Your task to perform on an android device: Open calendar and show me the third week of next month Image 0: 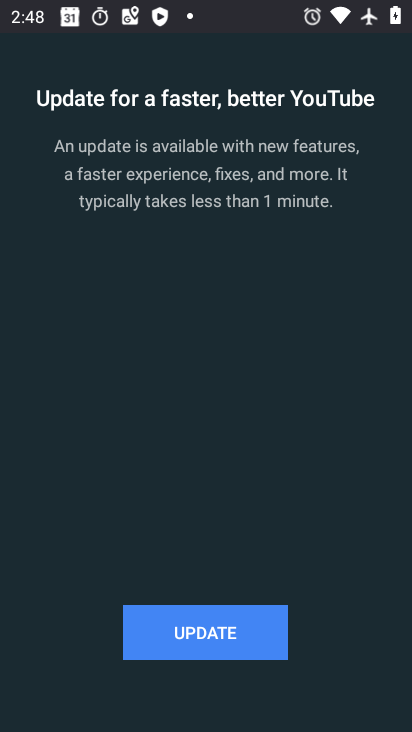
Step 0: press home button
Your task to perform on an android device: Open calendar and show me the third week of next month Image 1: 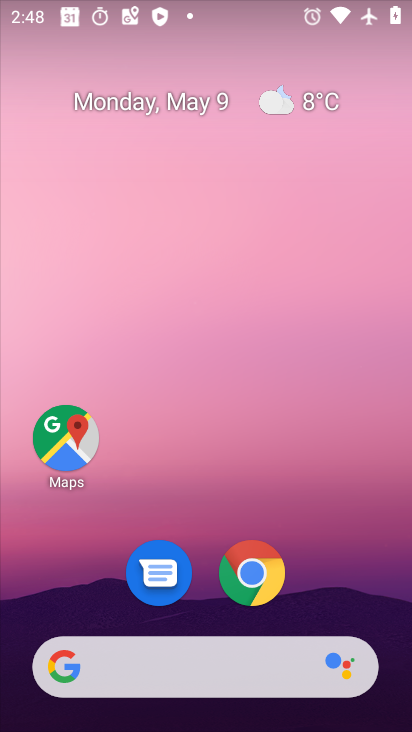
Step 1: drag from (155, 664) to (276, 14)
Your task to perform on an android device: Open calendar and show me the third week of next month Image 2: 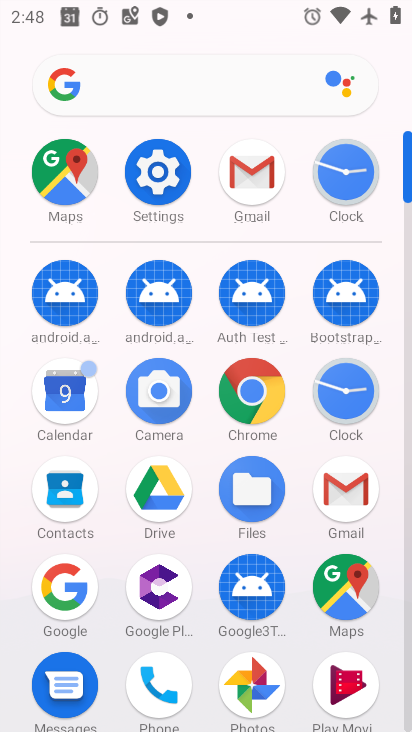
Step 2: click (57, 402)
Your task to perform on an android device: Open calendar and show me the third week of next month Image 3: 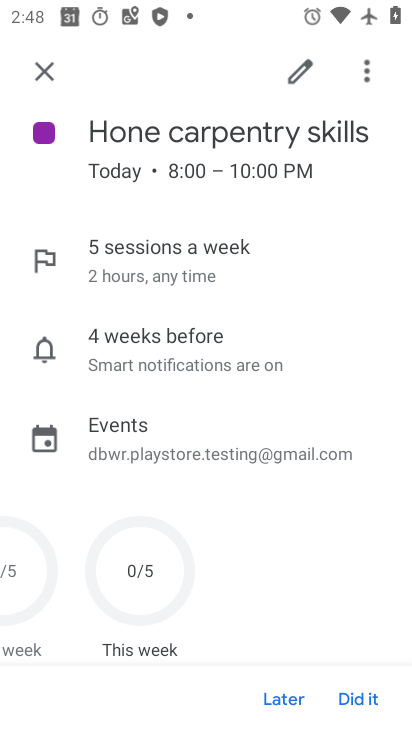
Step 3: click (43, 72)
Your task to perform on an android device: Open calendar and show me the third week of next month Image 4: 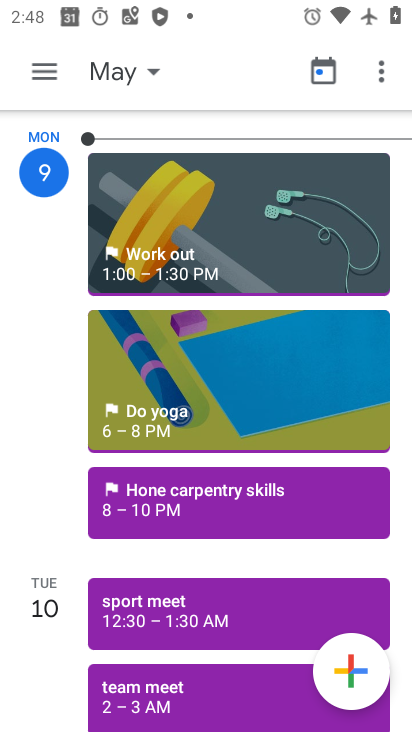
Step 4: click (114, 71)
Your task to perform on an android device: Open calendar and show me the third week of next month Image 5: 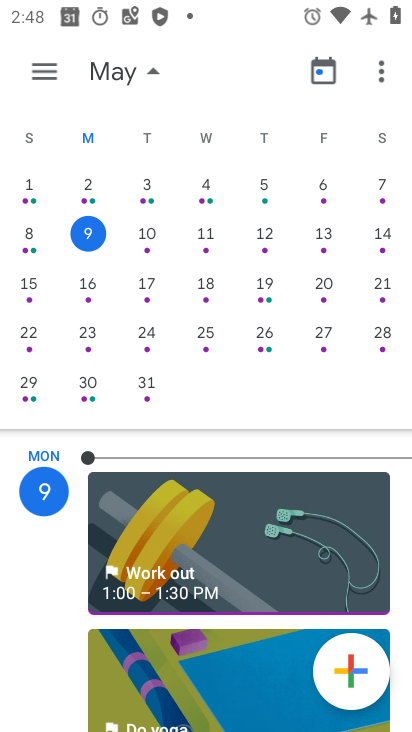
Step 5: drag from (330, 316) to (44, 241)
Your task to perform on an android device: Open calendar and show me the third week of next month Image 6: 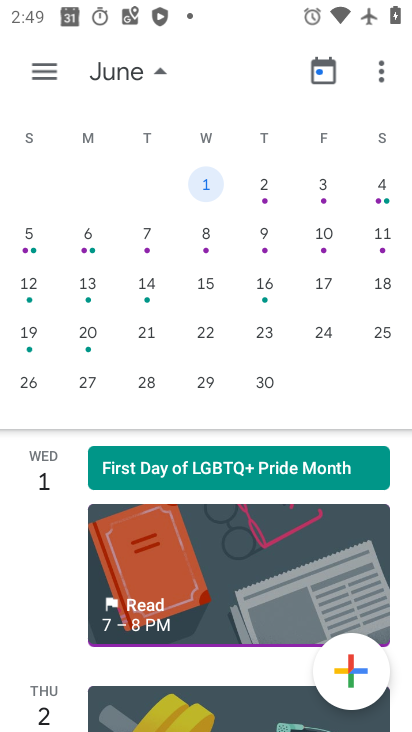
Step 6: click (34, 288)
Your task to perform on an android device: Open calendar and show me the third week of next month Image 7: 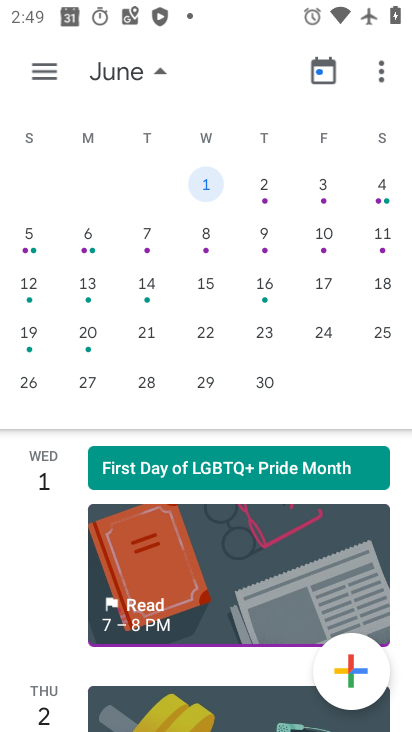
Step 7: click (31, 284)
Your task to perform on an android device: Open calendar and show me the third week of next month Image 8: 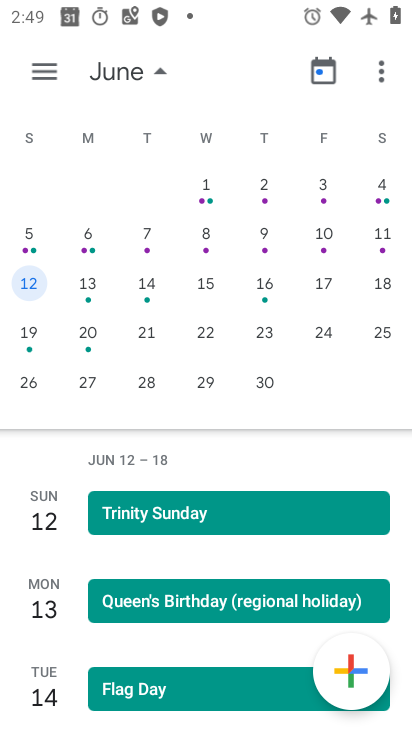
Step 8: click (48, 71)
Your task to perform on an android device: Open calendar and show me the third week of next month Image 9: 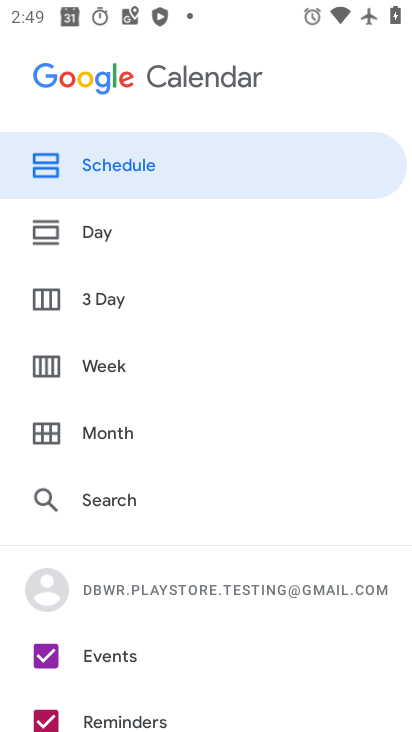
Step 9: click (105, 364)
Your task to perform on an android device: Open calendar and show me the third week of next month Image 10: 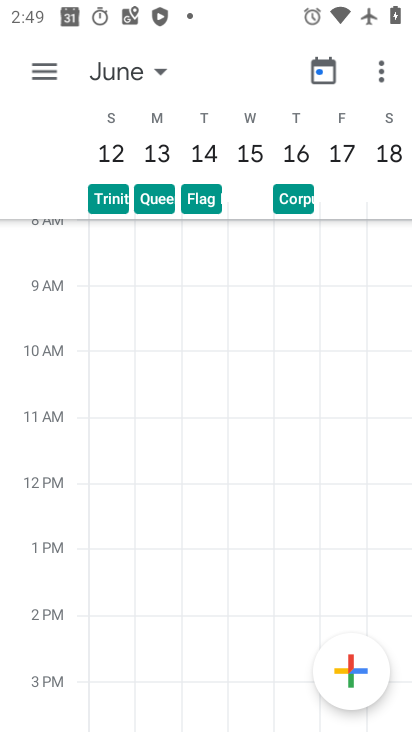
Step 10: click (44, 66)
Your task to perform on an android device: Open calendar and show me the third week of next month Image 11: 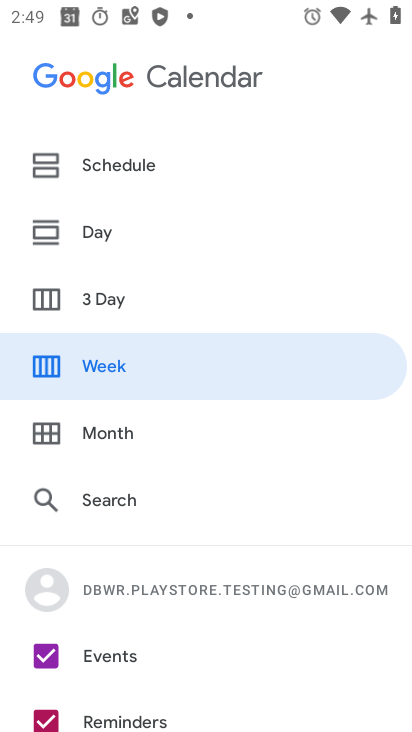
Step 11: click (110, 167)
Your task to perform on an android device: Open calendar and show me the third week of next month Image 12: 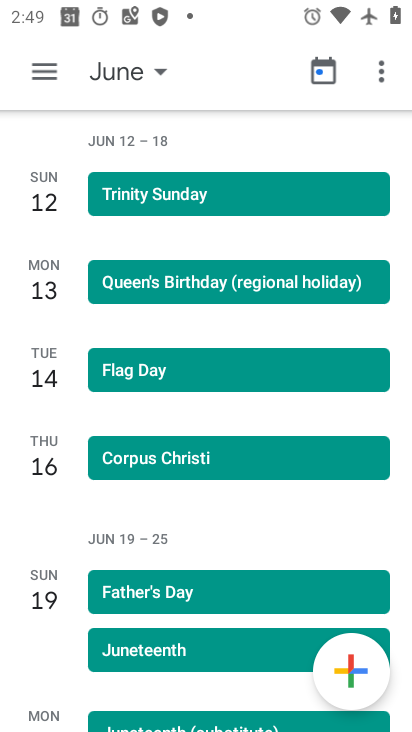
Step 12: click (42, 68)
Your task to perform on an android device: Open calendar and show me the third week of next month Image 13: 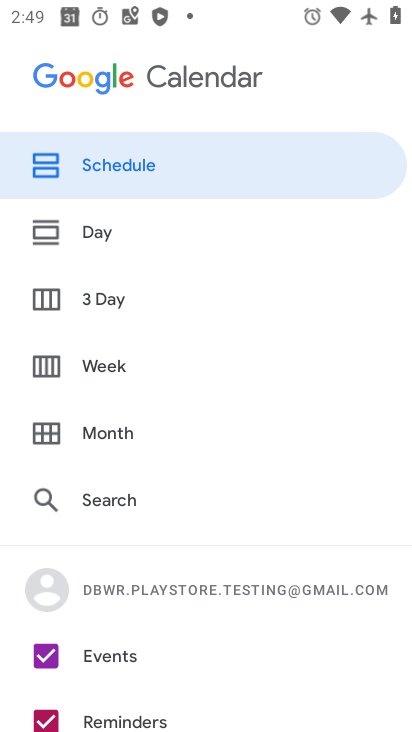
Step 13: click (106, 373)
Your task to perform on an android device: Open calendar and show me the third week of next month Image 14: 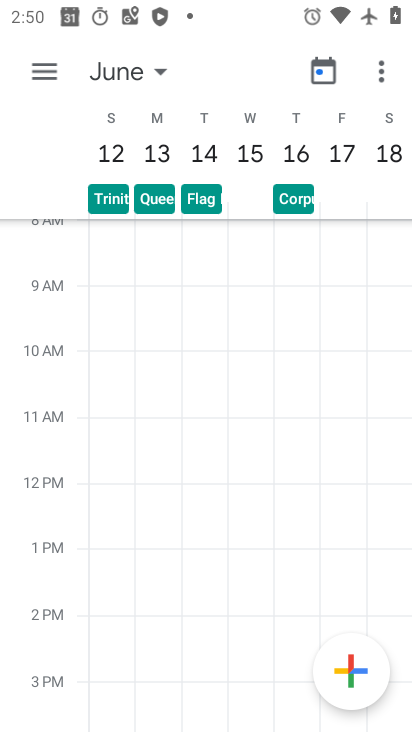
Step 14: task complete